Your task to perform on an android device: toggle show notifications on the lock screen Image 0: 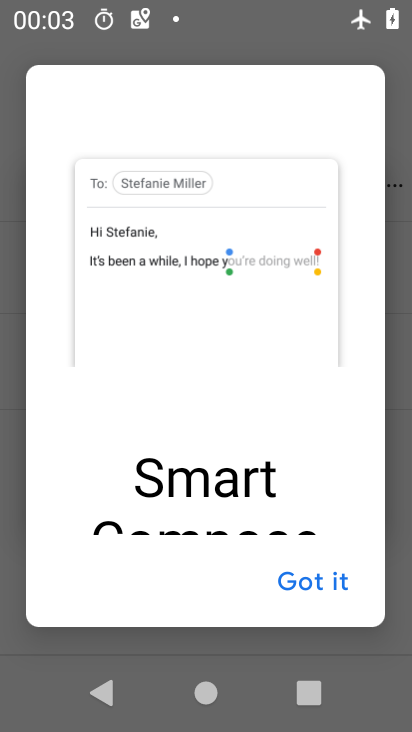
Step 0: press home button
Your task to perform on an android device: toggle show notifications on the lock screen Image 1: 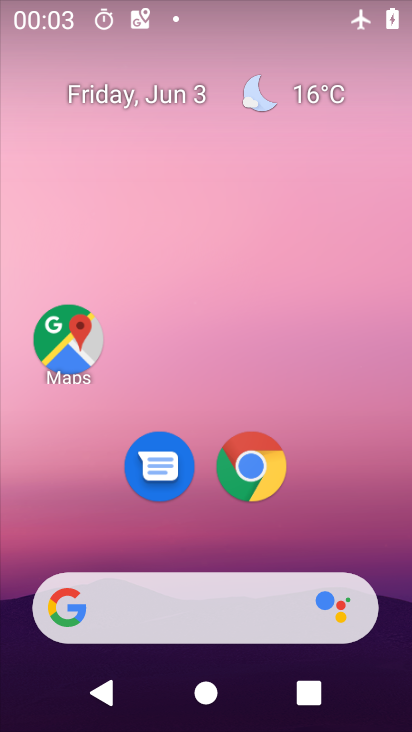
Step 1: drag from (212, 551) to (181, 232)
Your task to perform on an android device: toggle show notifications on the lock screen Image 2: 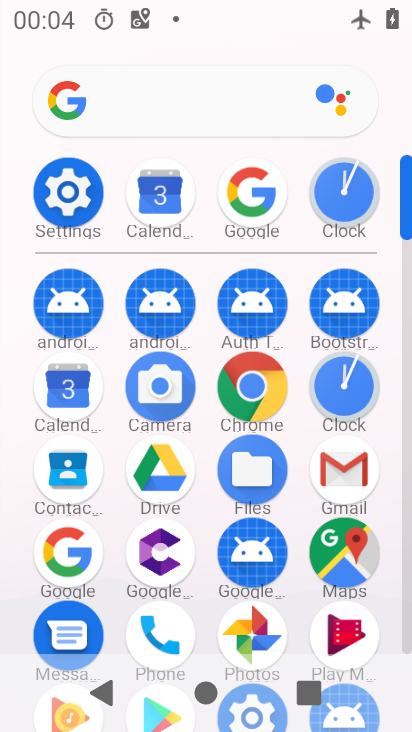
Step 2: click (62, 197)
Your task to perform on an android device: toggle show notifications on the lock screen Image 3: 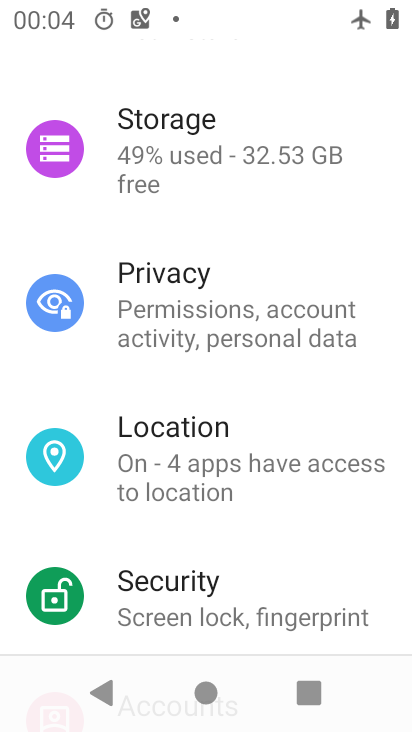
Step 3: drag from (242, 257) to (284, 527)
Your task to perform on an android device: toggle show notifications on the lock screen Image 4: 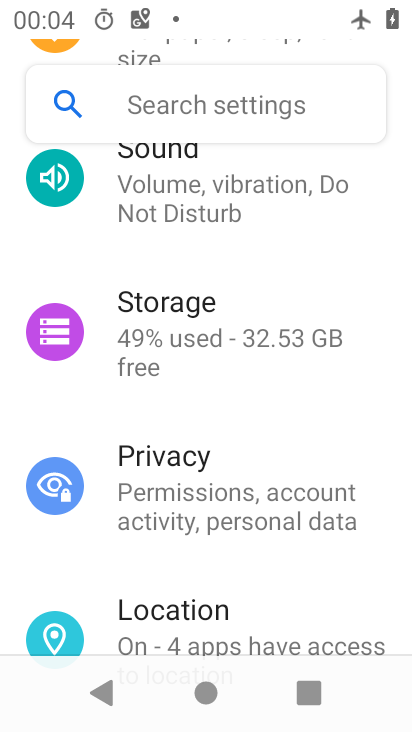
Step 4: drag from (219, 236) to (233, 536)
Your task to perform on an android device: toggle show notifications on the lock screen Image 5: 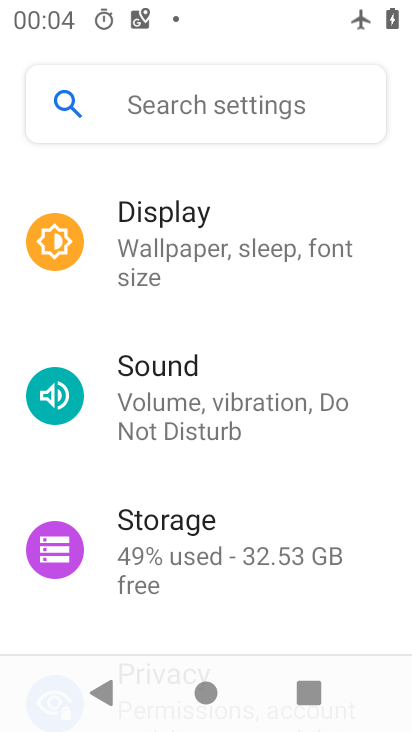
Step 5: drag from (208, 267) to (239, 530)
Your task to perform on an android device: toggle show notifications on the lock screen Image 6: 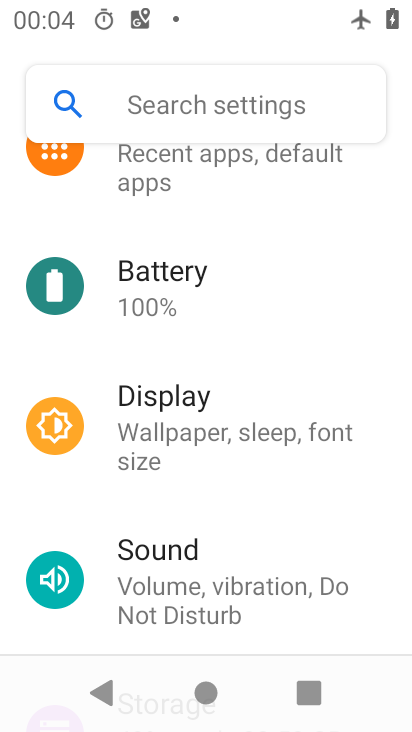
Step 6: drag from (206, 246) to (251, 442)
Your task to perform on an android device: toggle show notifications on the lock screen Image 7: 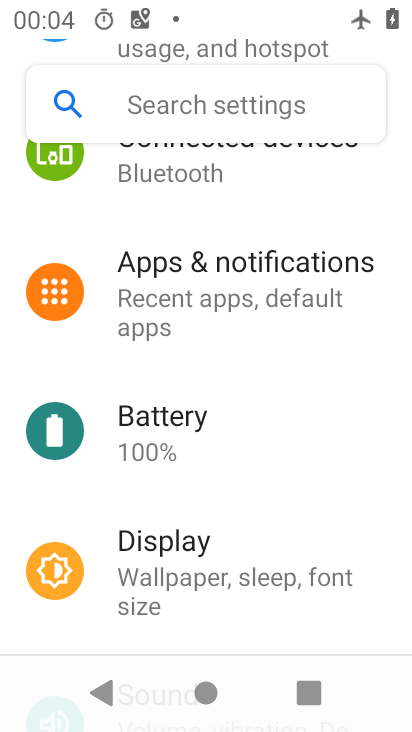
Step 7: drag from (217, 272) to (228, 370)
Your task to perform on an android device: toggle show notifications on the lock screen Image 8: 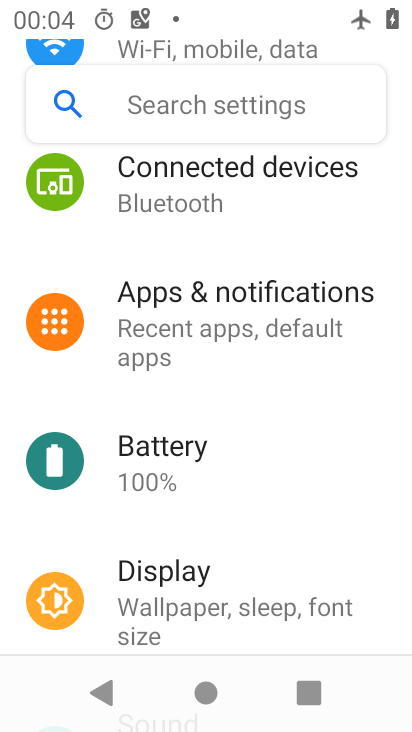
Step 8: click (219, 342)
Your task to perform on an android device: toggle show notifications on the lock screen Image 9: 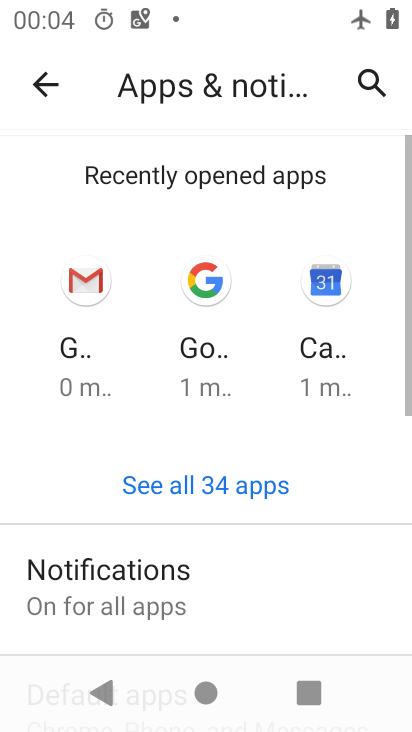
Step 9: click (184, 565)
Your task to perform on an android device: toggle show notifications on the lock screen Image 10: 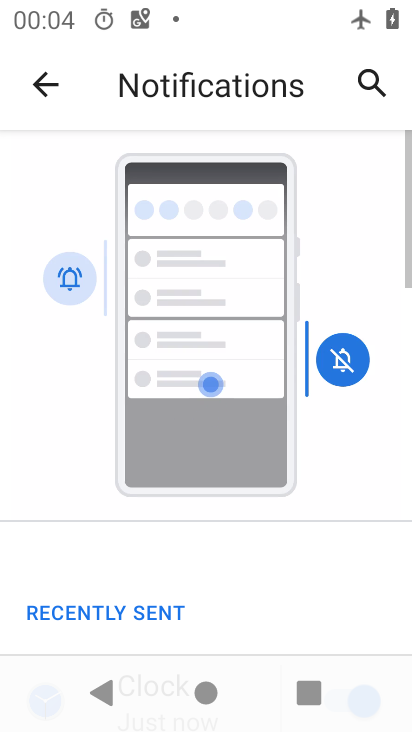
Step 10: drag from (204, 571) to (190, 309)
Your task to perform on an android device: toggle show notifications on the lock screen Image 11: 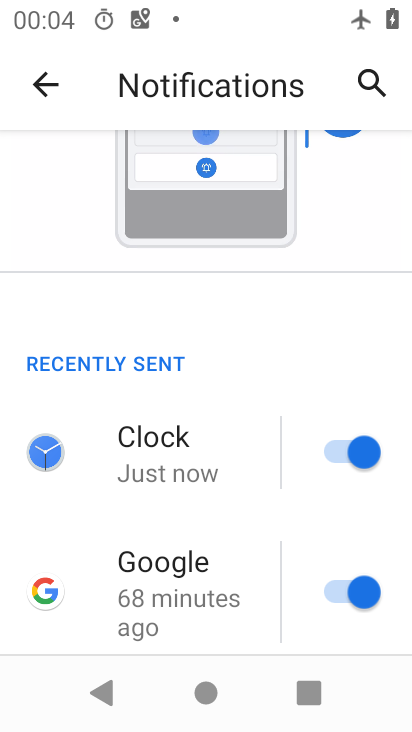
Step 11: drag from (199, 504) to (234, 307)
Your task to perform on an android device: toggle show notifications on the lock screen Image 12: 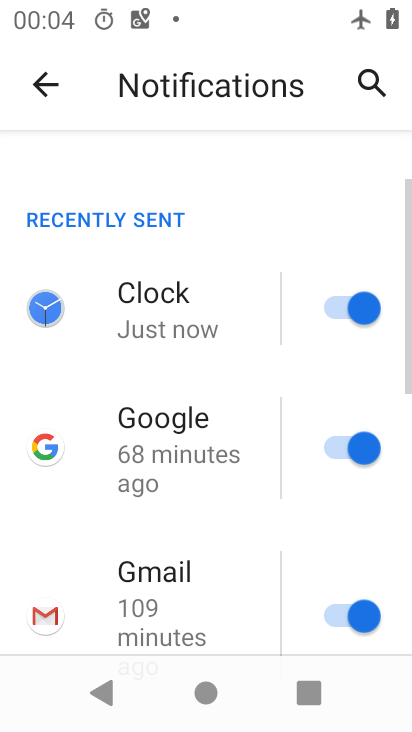
Step 12: drag from (209, 558) to (209, 311)
Your task to perform on an android device: toggle show notifications on the lock screen Image 13: 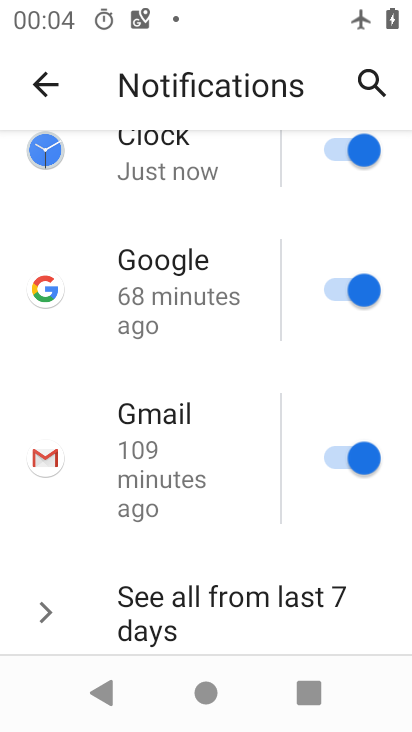
Step 13: drag from (199, 546) to (200, 346)
Your task to perform on an android device: toggle show notifications on the lock screen Image 14: 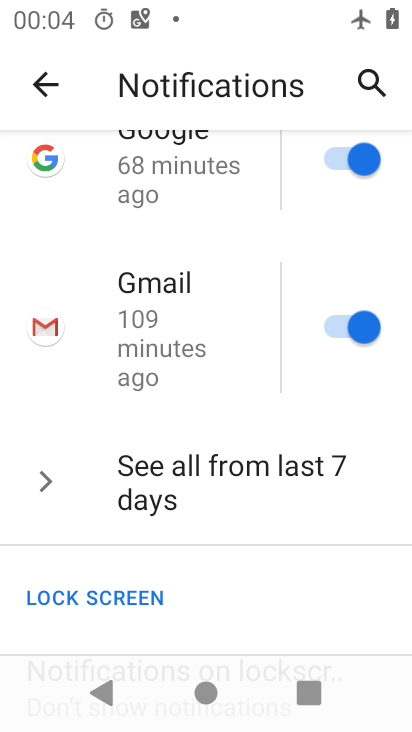
Step 14: drag from (210, 625) to (212, 330)
Your task to perform on an android device: toggle show notifications on the lock screen Image 15: 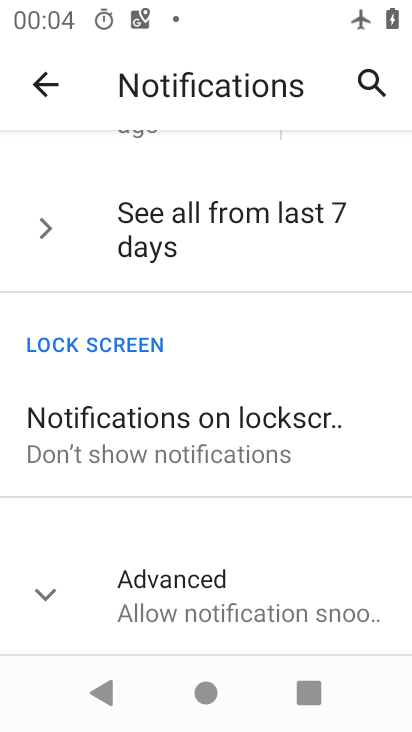
Step 15: click (167, 421)
Your task to perform on an android device: toggle show notifications on the lock screen Image 16: 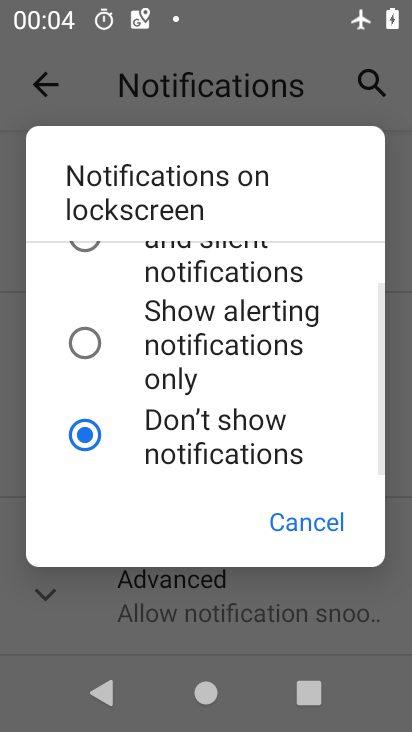
Step 16: click (146, 249)
Your task to perform on an android device: toggle show notifications on the lock screen Image 17: 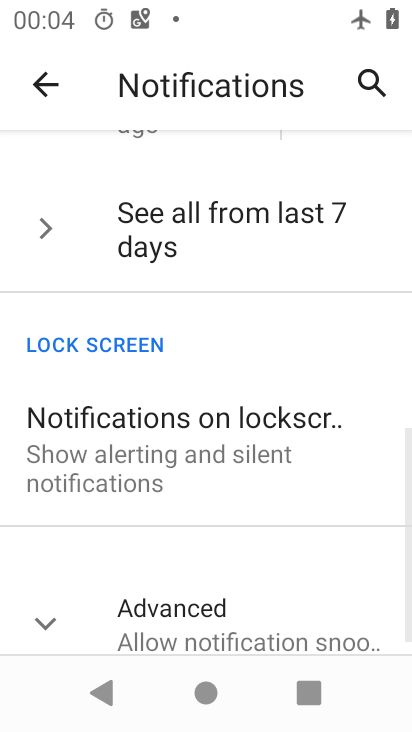
Step 17: task complete